Your task to perform on an android device: Open my contact list Image 0: 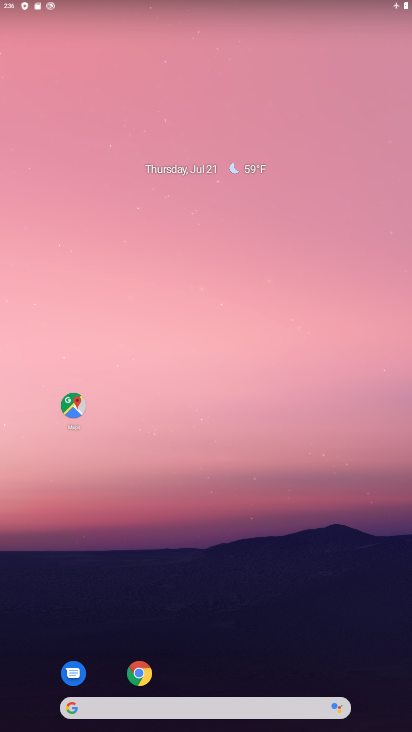
Step 0: drag from (376, 679) to (311, 102)
Your task to perform on an android device: Open my contact list Image 1: 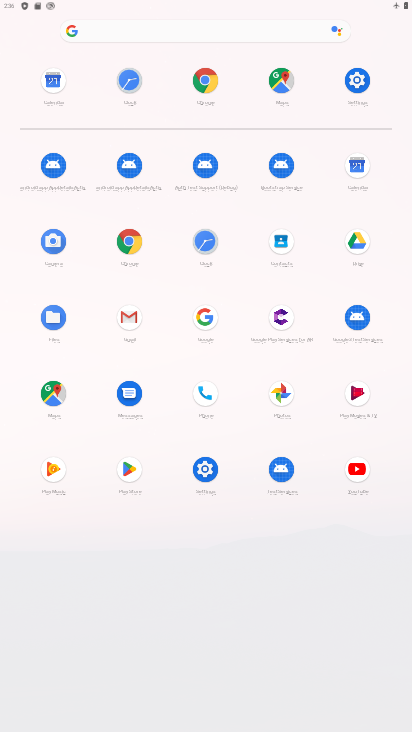
Step 1: click (282, 242)
Your task to perform on an android device: Open my contact list Image 2: 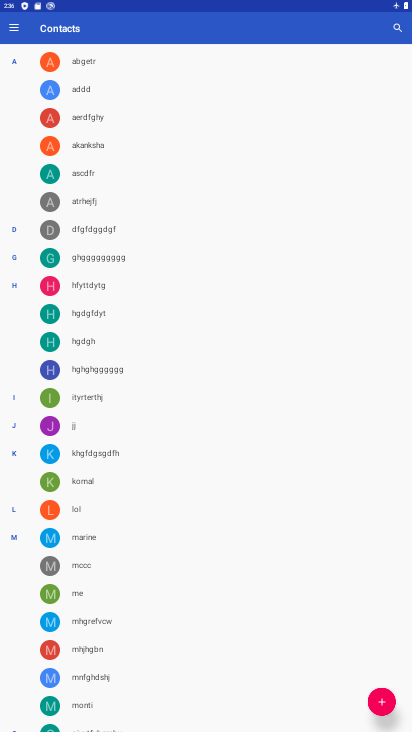
Step 2: task complete